Your task to perform on an android device: Search for seafood restaurants on Google Maps Image 0: 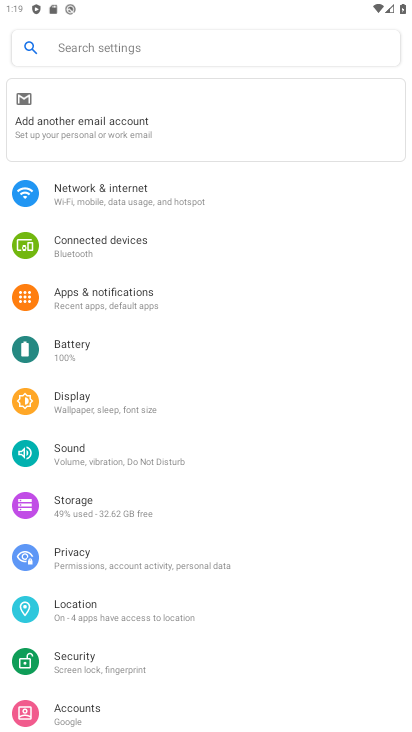
Step 0: press back button
Your task to perform on an android device: Search for seafood restaurants on Google Maps Image 1: 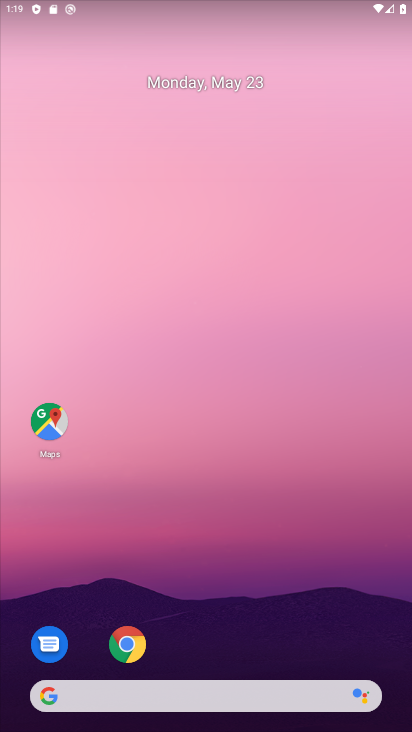
Step 1: drag from (295, 619) to (263, 6)
Your task to perform on an android device: Search for seafood restaurants on Google Maps Image 2: 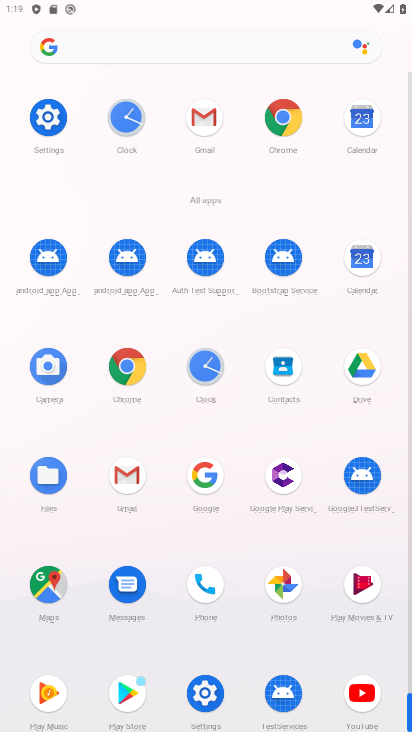
Step 2: drag from (17, 645) to (0, 202)
Your task to perform on an android device: Search for seafood restaurants on Google Maps Image 3: 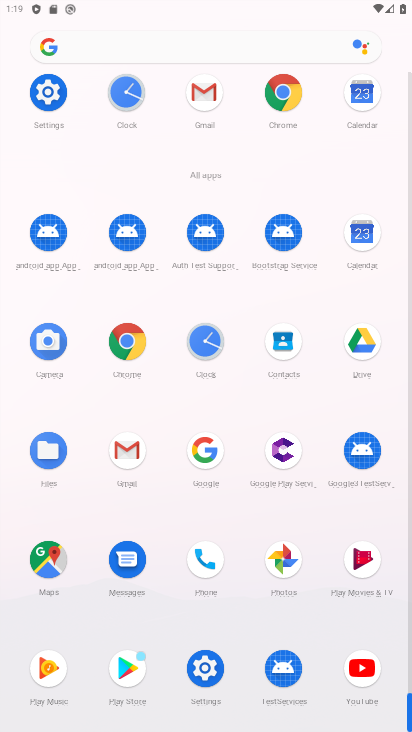
Step 3: click (41, 561)
Your task to perform on an android device: Search for seafood restaurants on Google Maps Image 4: 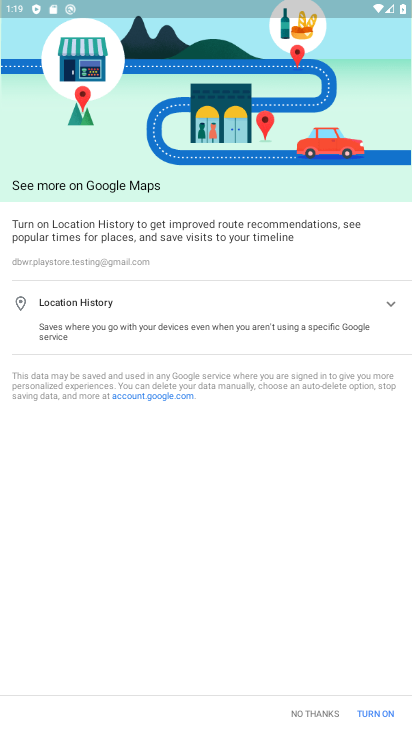
Step 4: click (381, 709)
Your task to perform on an android device: Search for seafood restaurants on Google Maps Image 5: 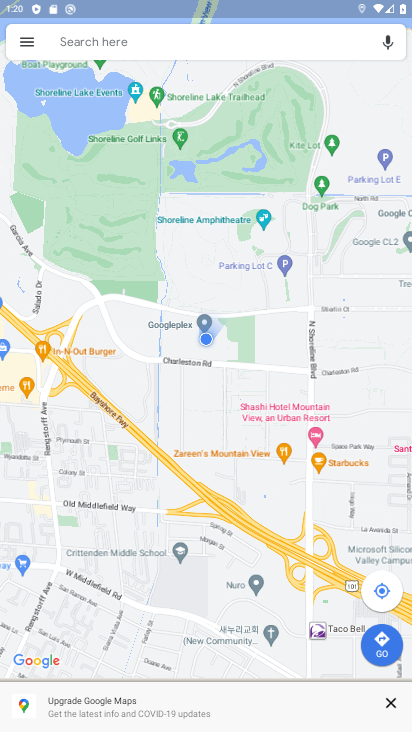
Step 5: click (32, 38)
Your task to perform on an android device: Search for seafood restaurants on Google Maps Image 6: 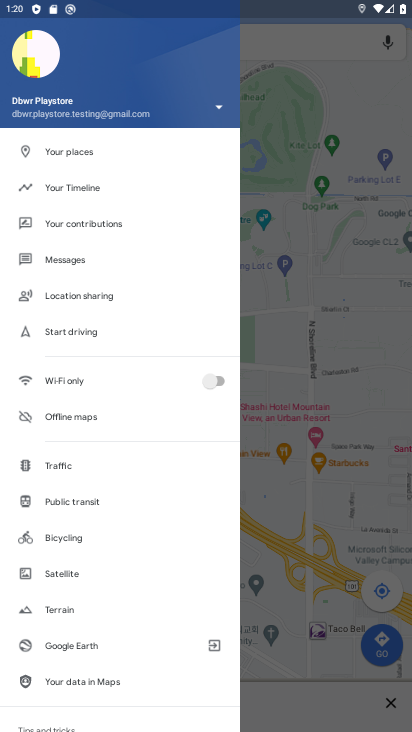
Step 6: click (322, 112)
Your task to perform on an android device: Search for seafood restaurants on Google Maps Image 7: 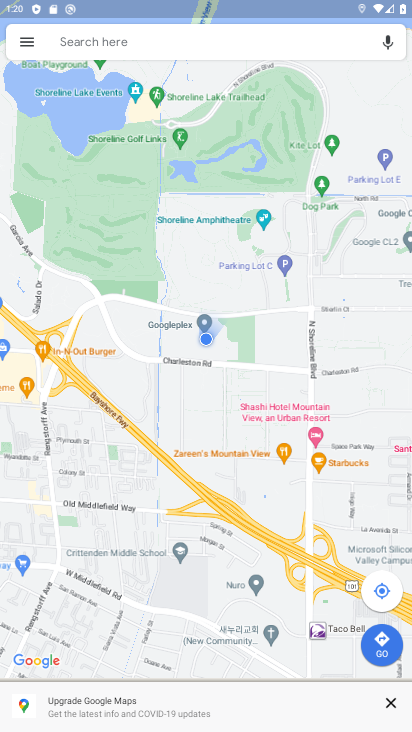
Step 7: click (195, 41)
Your task to perform on an android device: Search for seafood restaurants on Google Maps Image 8: 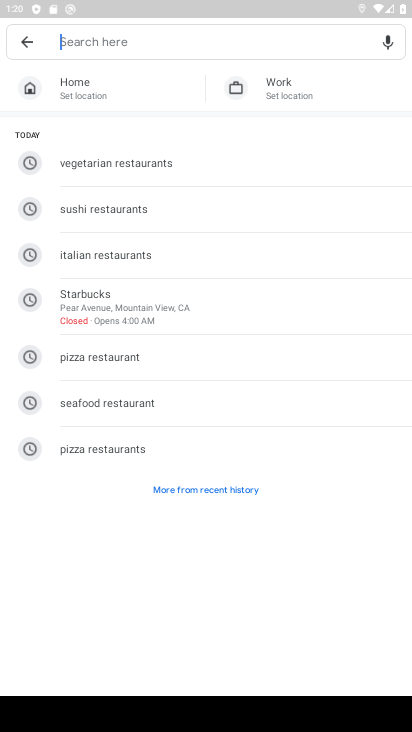
Step 8: click (161, 416)
Your task to perform on an android device: Search for seafood restaurants on Google Maps Image 9: 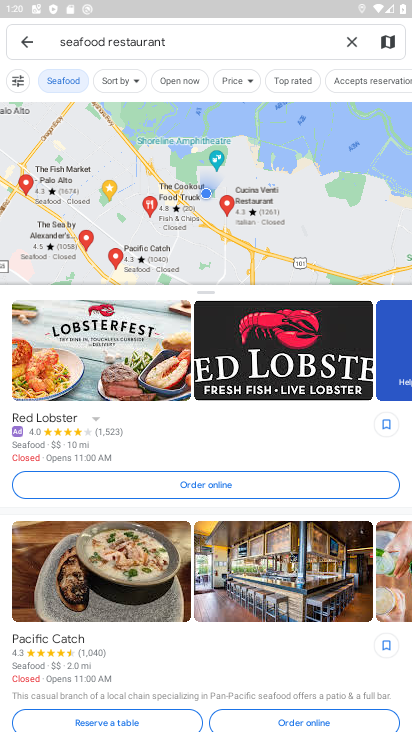
Step 9: task complete